Your task to perform on an android device: open a bookmark in the chrome app Image 0: 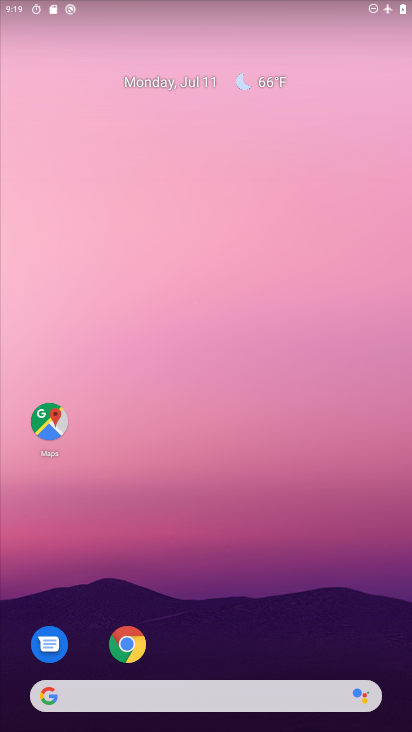
Step 0: drag from (225, 612) to (233, 16)
Your task to perform on an android device: open a bookmark in the chrome app Image 1: 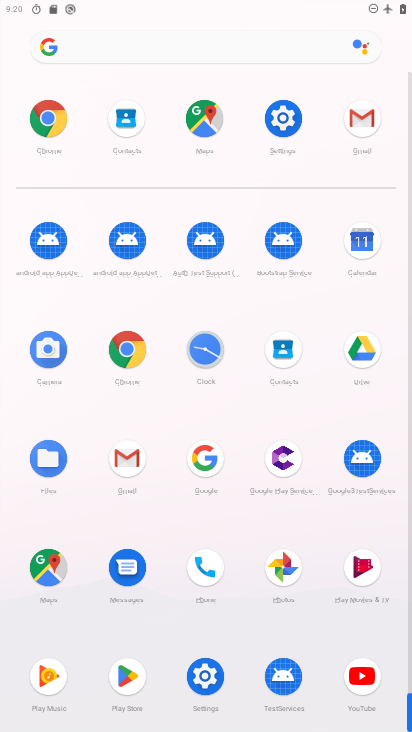
Step 1: click (128, 345)
Your task to perform on an android device: open a bookmark in the chrome app Image 2: 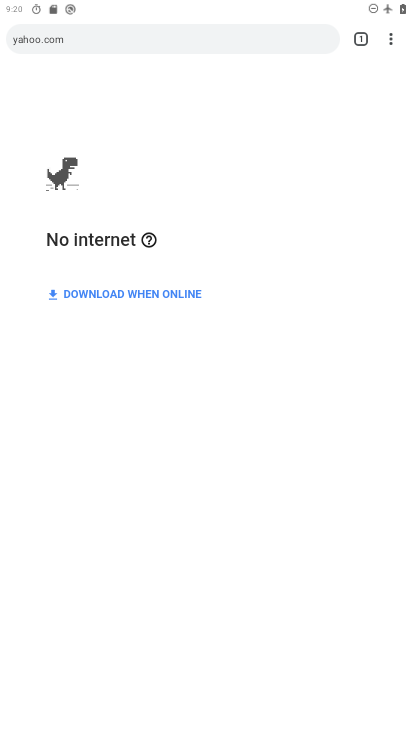
Step 2: drag from (395, 34) to (246, 195)
Your task to perform on an android device: open a bookmark in the chrome app Image 3: 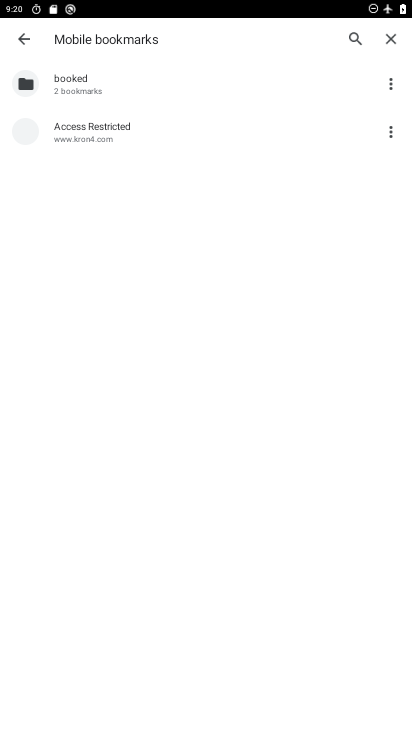
Step 3: click (77, 137)
Your task to perform on an android device: open a bookmark in the chrome app Image 4: 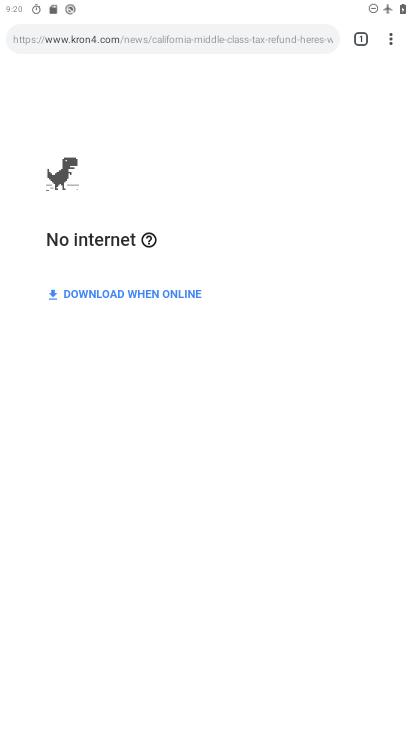
Step 4: click (78, 136)
Your task to perform on an android device: open a bookmark in the chrome app Image 5: 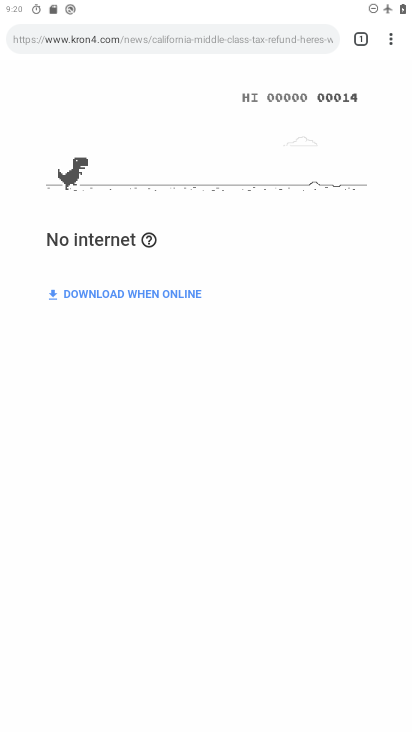
Step 5: task complete